Your task to perform on an android device: check battery use Image 0: 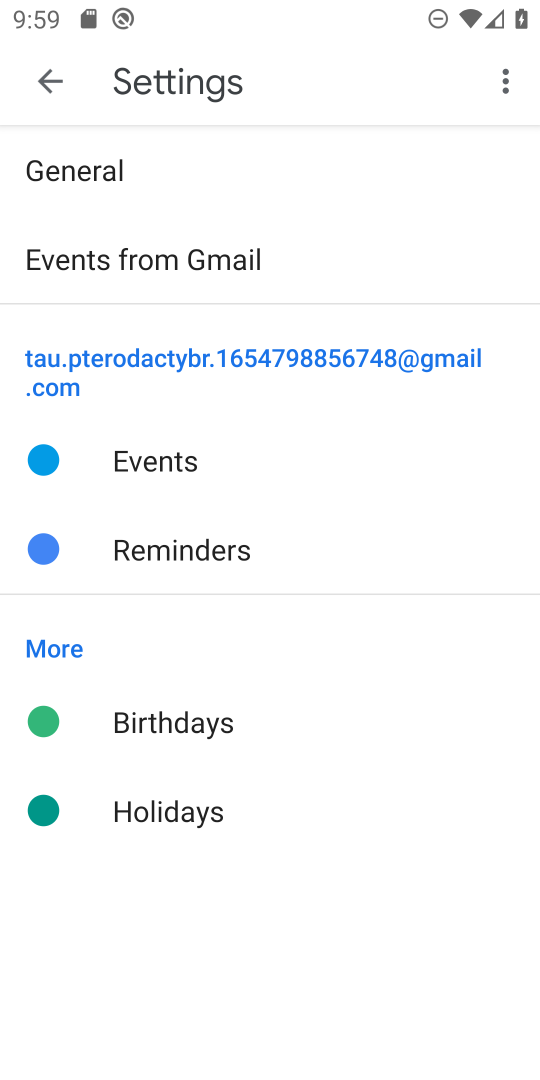
Step 0: press home button
Your task to perform on an android device: check battery use Image 1: 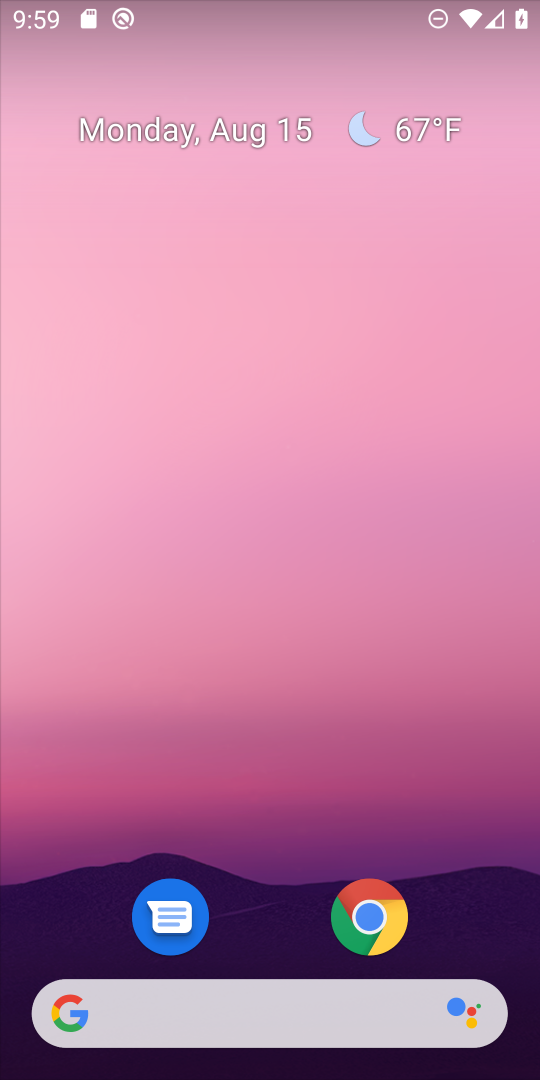
Step 1: drag from (238, 798) to (334, 0)
Your task to perform on an android device: check battery use Image 2: 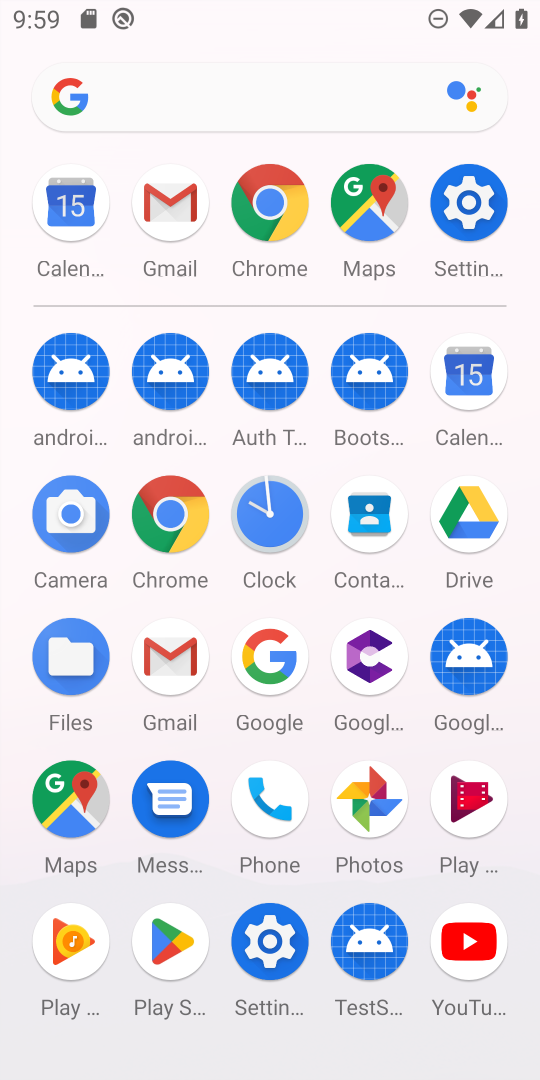
Step 2: click (456, 185)
Your task to perform on an android device: check battery use Image 3: 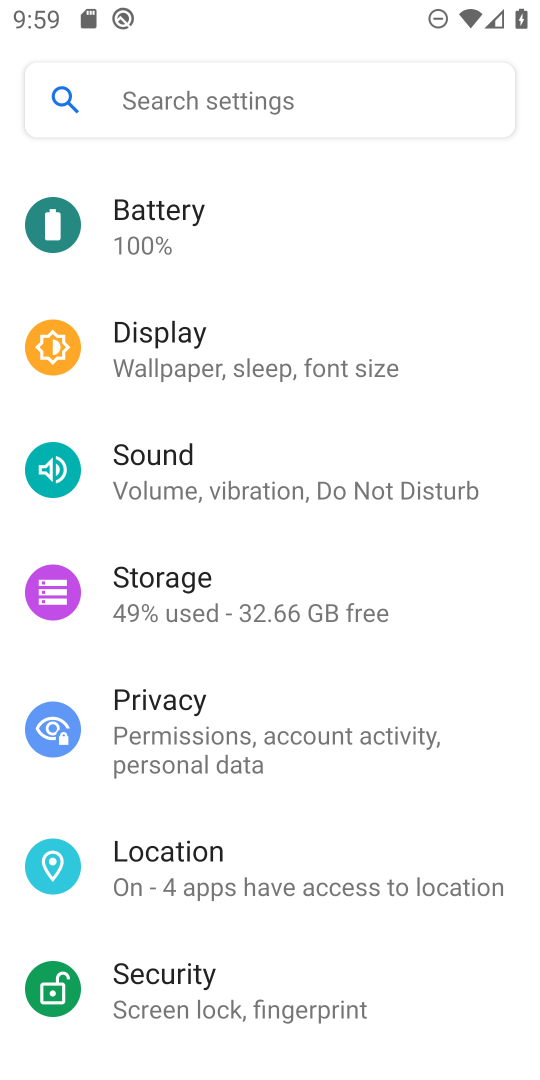
Step 3: click (253, 227)
Your task to perform on an android device: check battery use Image 4: 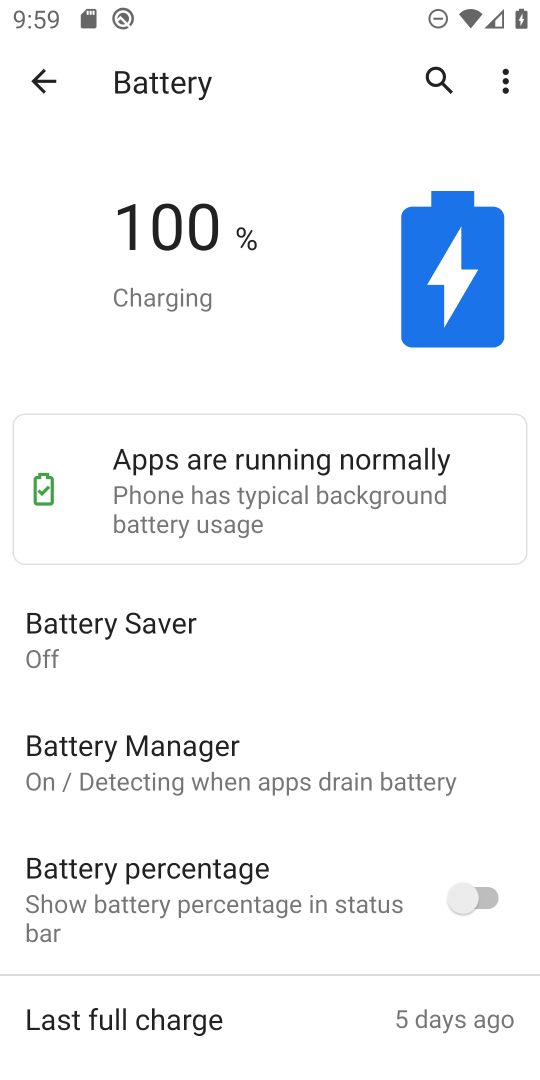
Step 4: click (509, 83)
Your task to perform on an android device: check battery use Image 5: 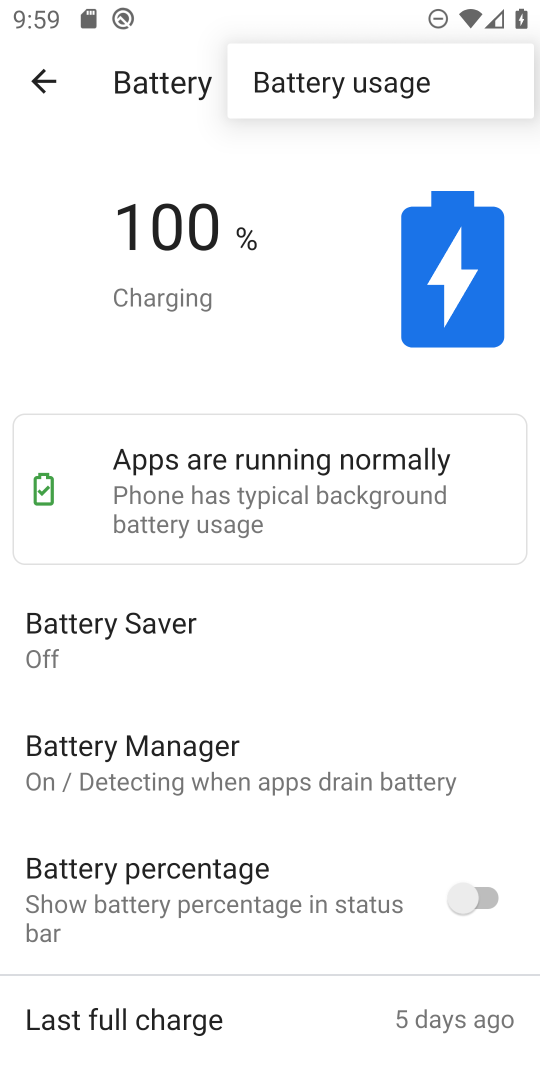
Step 5: click (393, 77)
Your task to perform on an android device: check battery use Image 6: 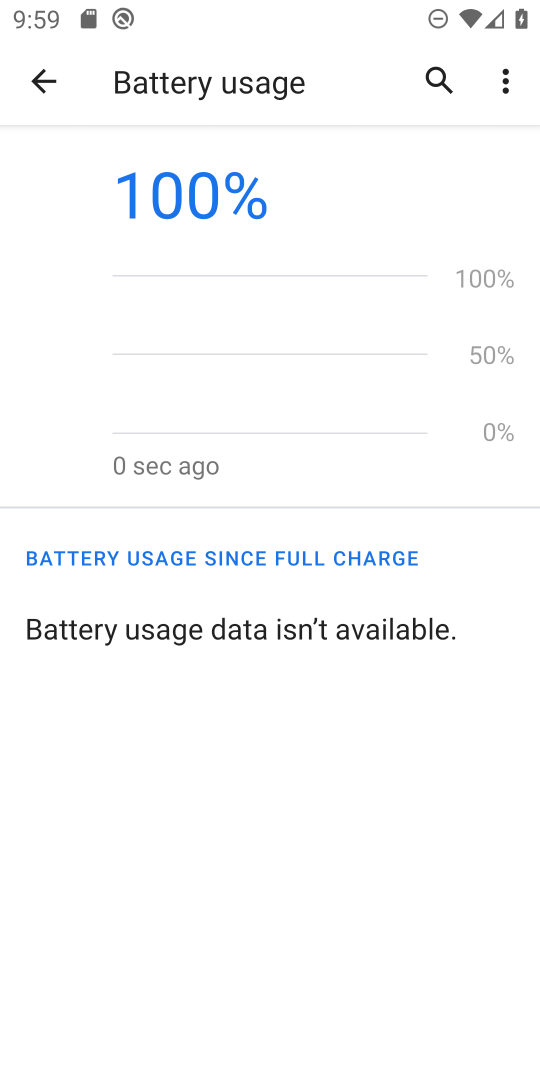
Step 6: task complete